Your task to perform on an android device: check the backup settings in the google photos Image 0: 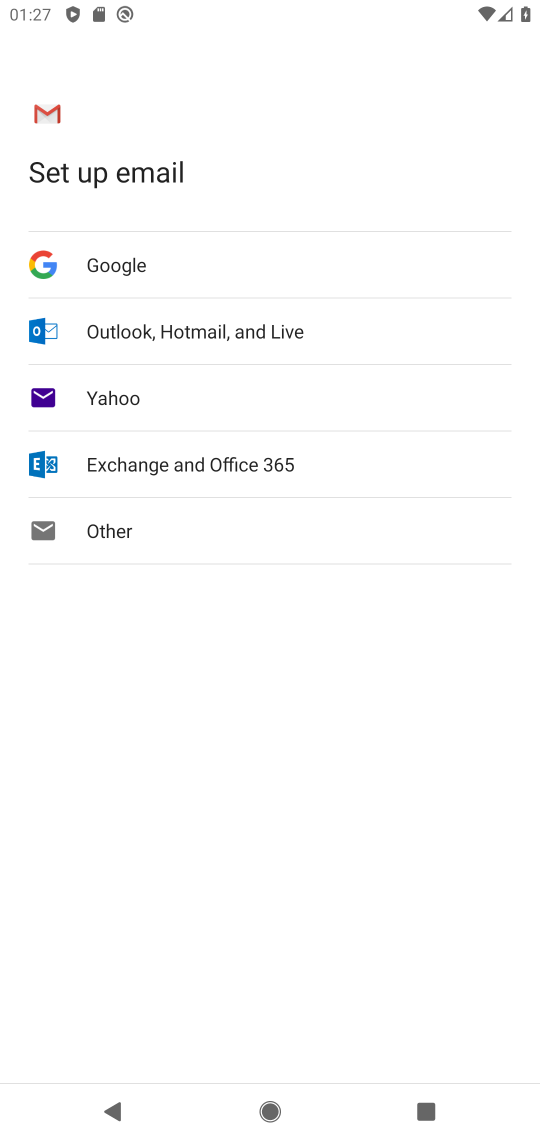
Step 0: press home button
Your task to perform on an android device: check the backup settings in the google photos Image 1: 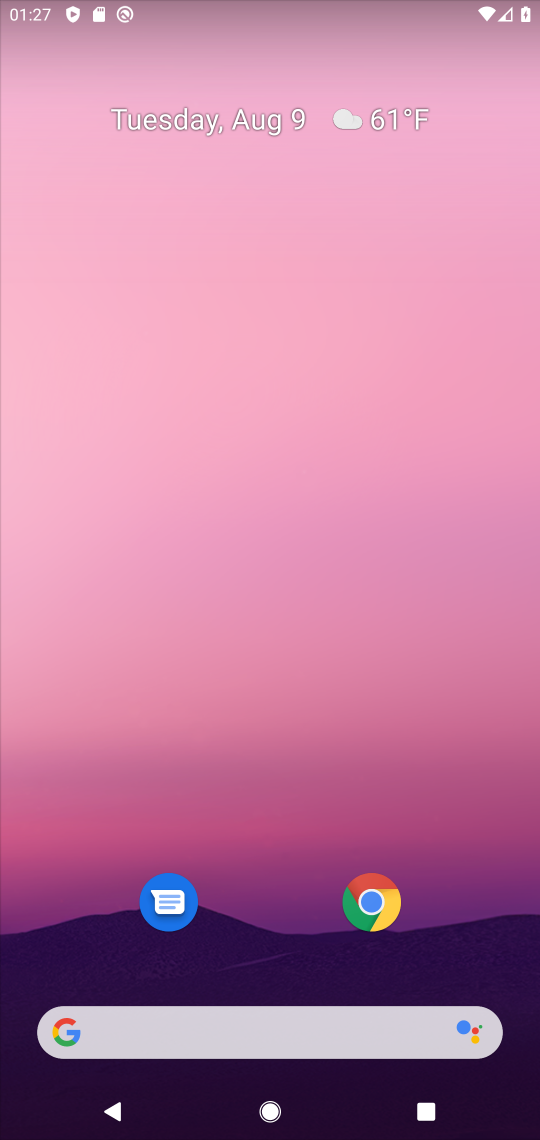
Step 1: drag from (219, 1008) to (326, 362)
Your task to perform on an android device: check the backup settings in the google photos Image 2: 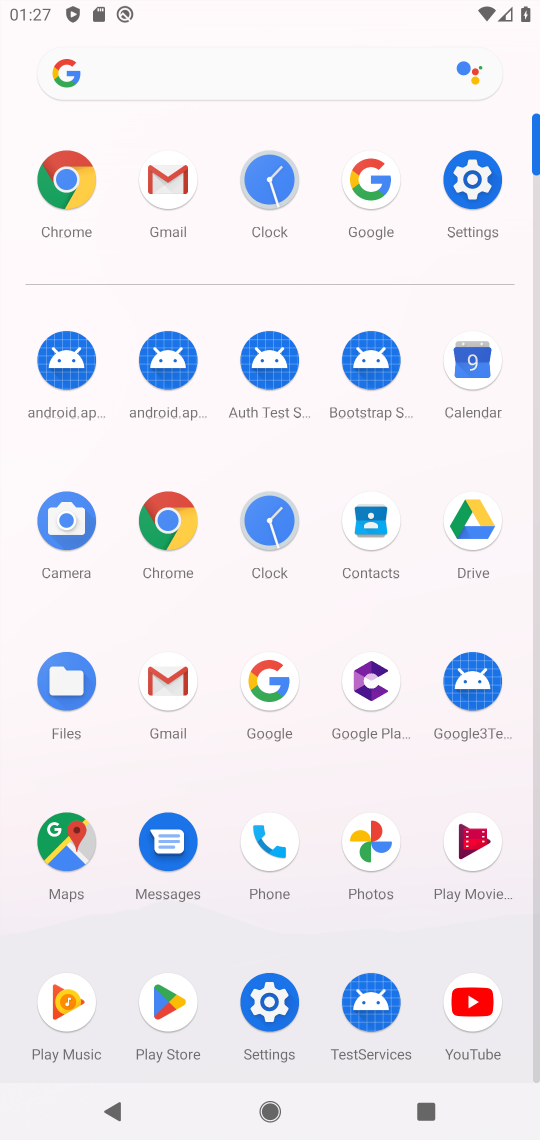
Step 2: click (363, 851)
Your task to perform on an android device: check the backup settings in the google photos Image 3: 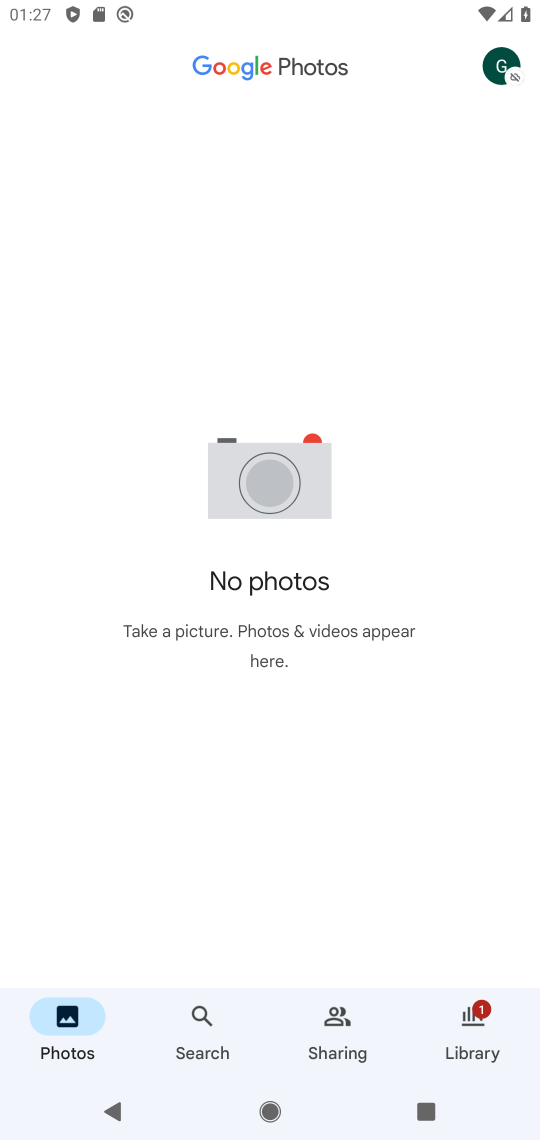
Step 3: click (522, 59)
Your task to perform on an android device: check the backup settings in the google photos Image 4: 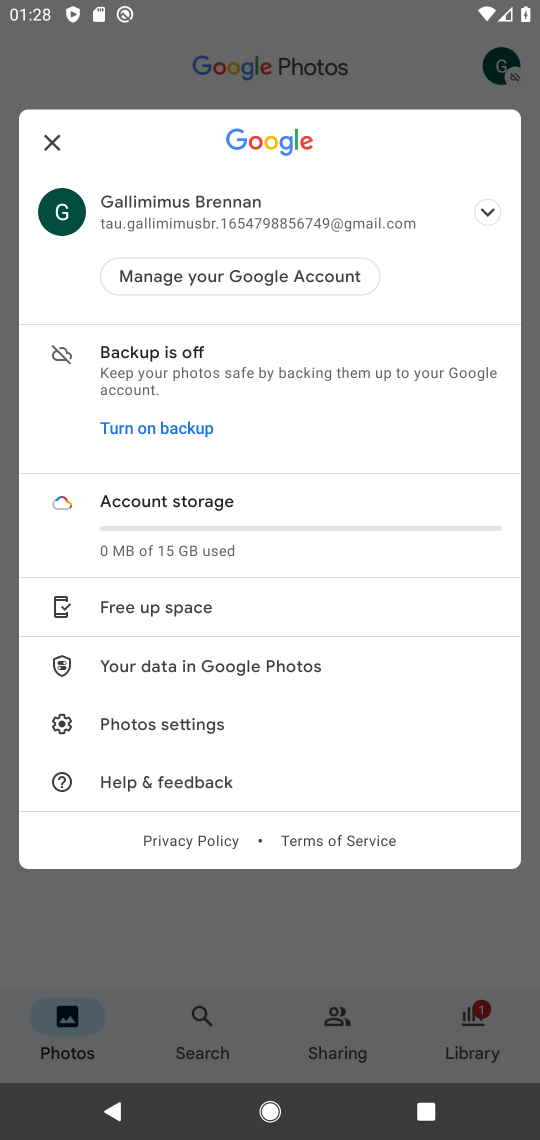
Step 4: click (149, 730)
Your task to perform on an android device: check the backup settings in the google photos Image 5: 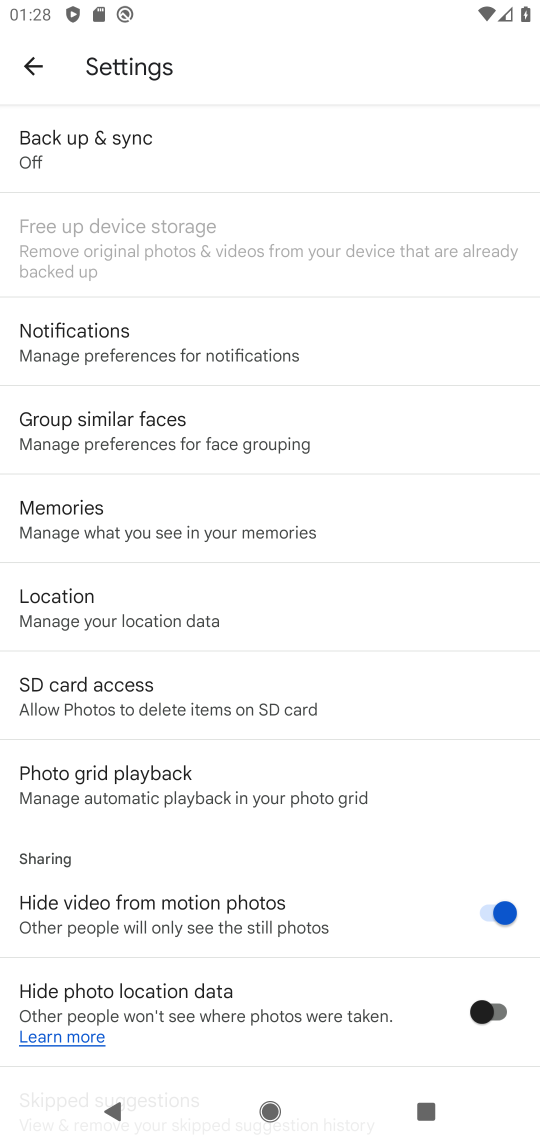
Step 5: task complete